Your task to perform on an android device: visit the assistant section in the google photos Image 0: 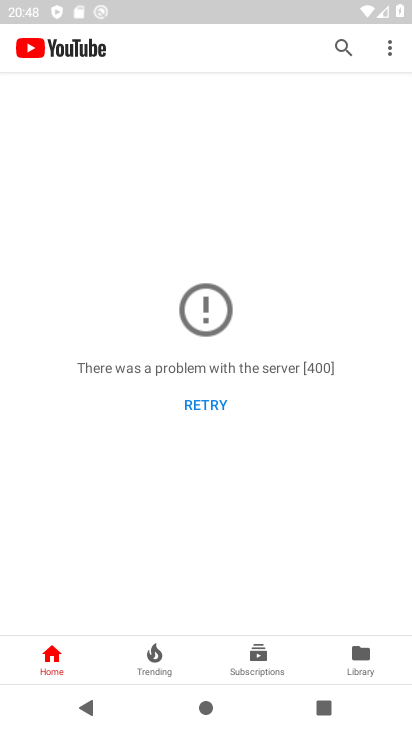
Step 0: press home button
Your task to perform on an android device: visit the assistant section in the google photos Image 1: 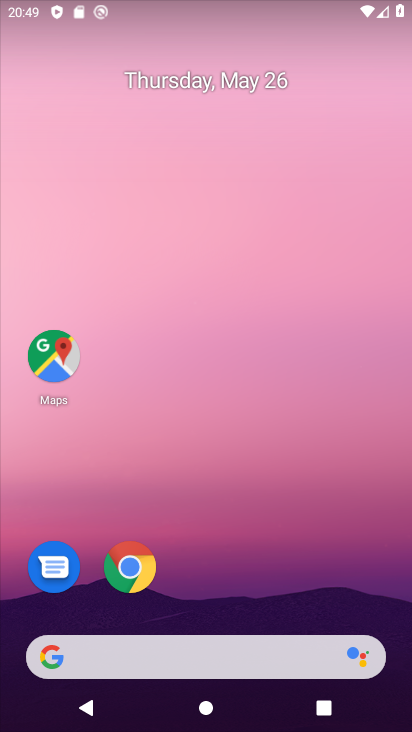
Step 1: drag from (251, 573) to (308, 28)
Your task to perform on an android device: visit the assistant section in the google photos Image 2: 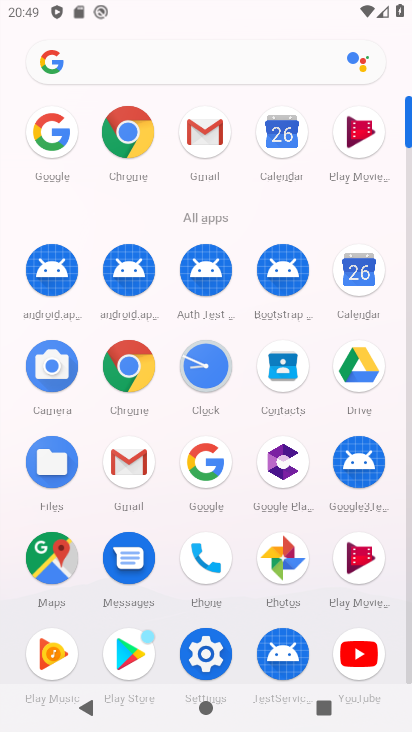
Step 2: click (279, 563)
Your task to perform on an android device: visit the assistant section in the google photos Image 3: 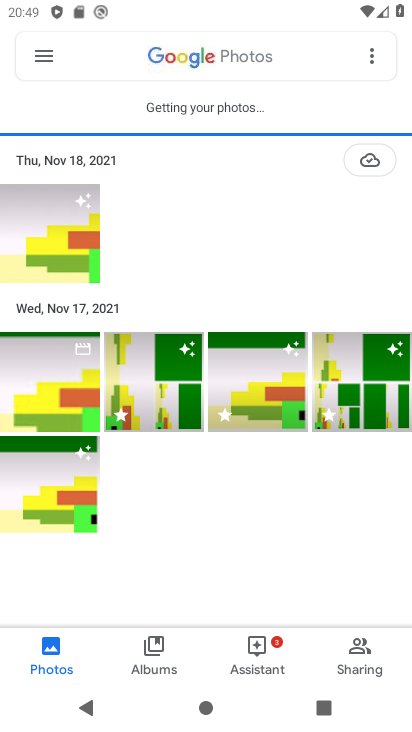
Step 3: click (257, 646)
Your task to perform on an android device: visit the assistant section in the google photos Image 4: 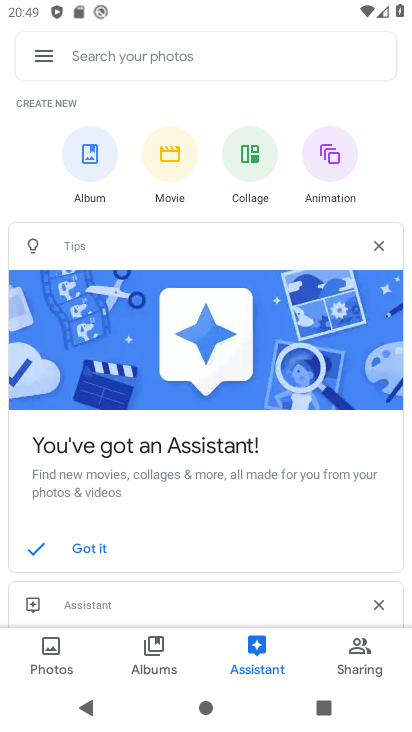
Step 4: task complete